Your task to perform on an android device: turn on translation in the chrome app Image 0: 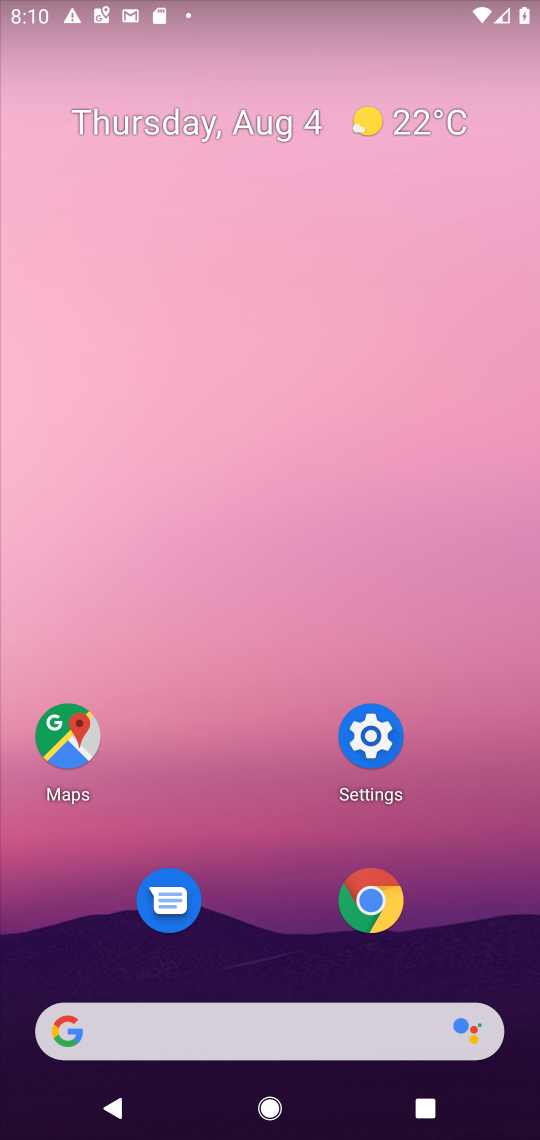
Step 0: click (381, 904)
Your task to perform on an android device: turn on translation in the chrome app Image 1: 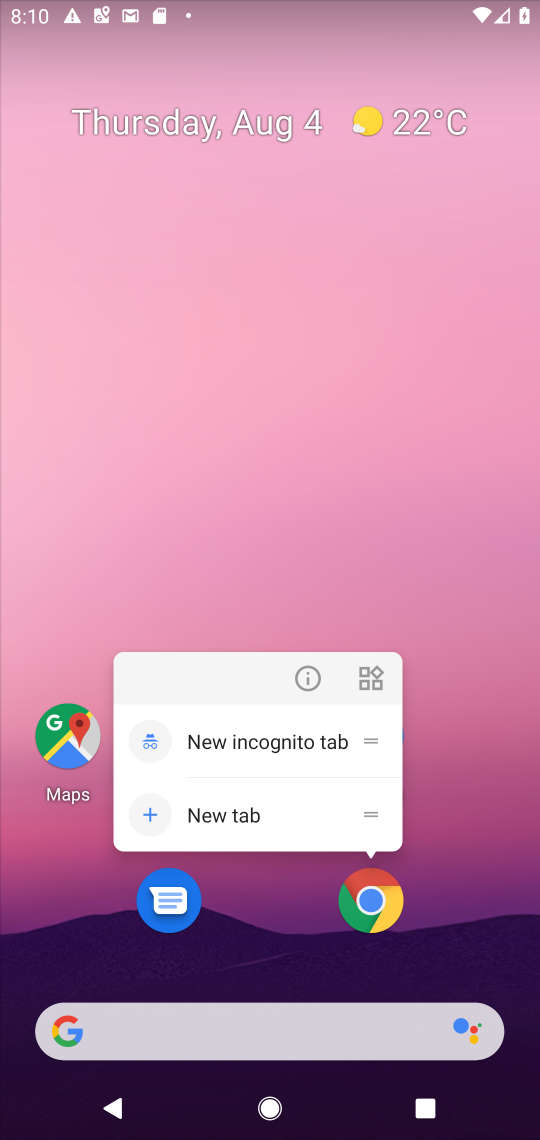
Step 1: click (370, 893)
Your task to perform on an android device: turn on translation in the chrome app Image 2: 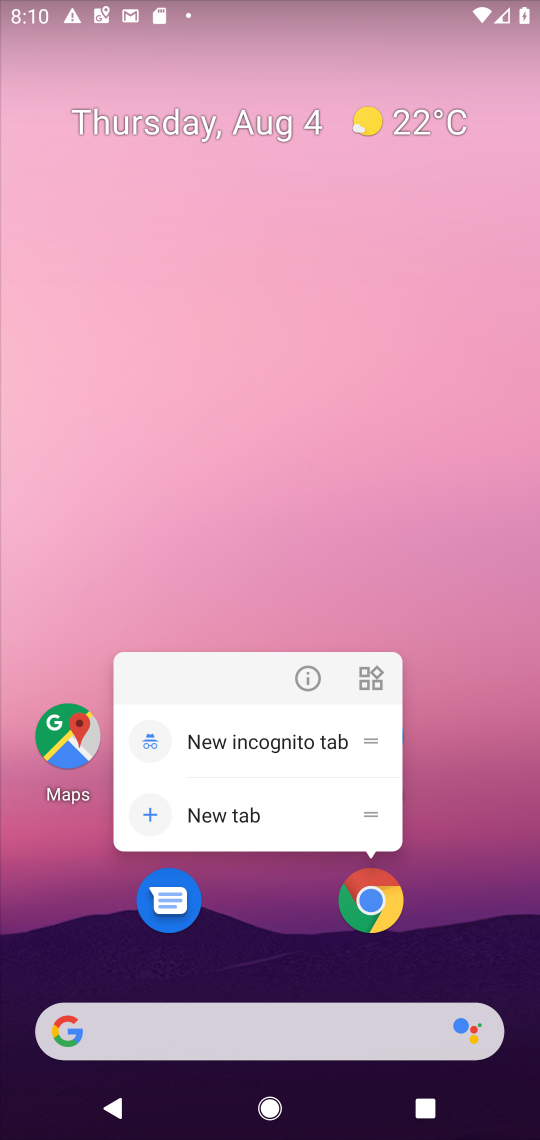
Step 2: click (367, 896)
Your task to perform on an android device: turn on translation in the chrome app Image 3: 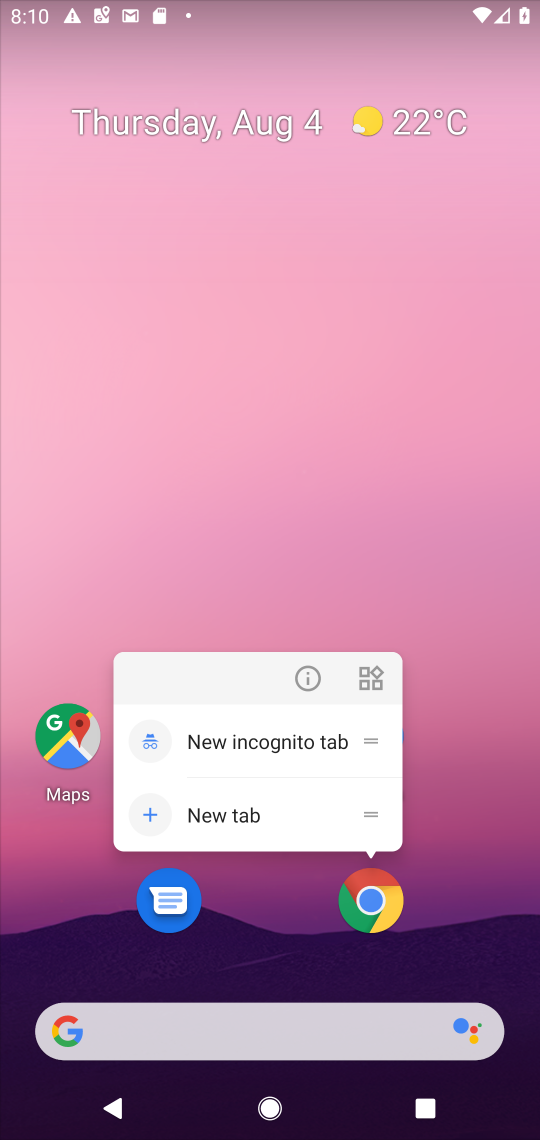
Step 3: click (367, 897)
Your task to perform on an android device: turn on translation in the chrome app Image 4: 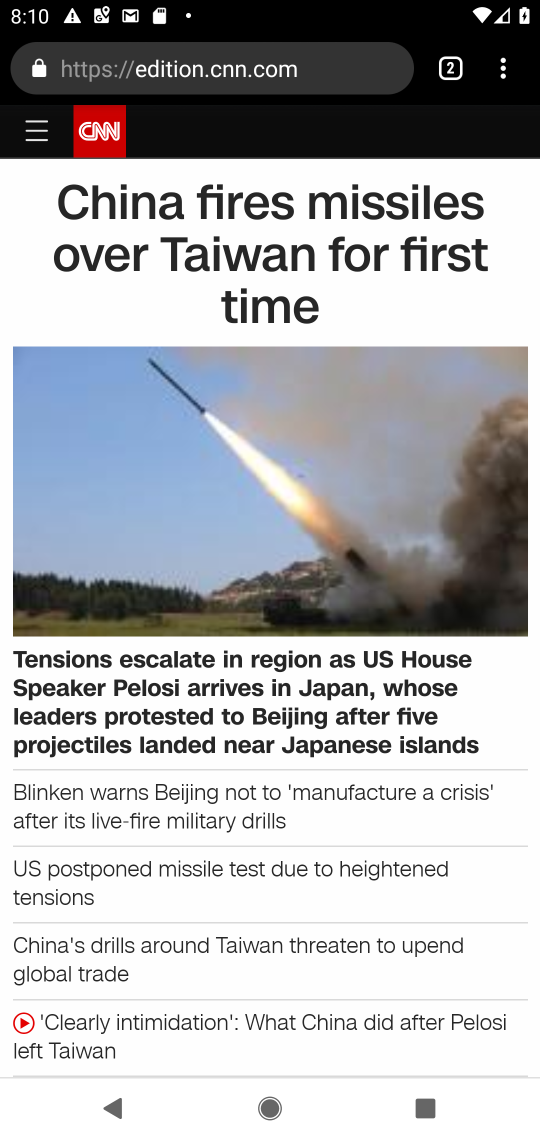
Step 4: click (364, 902)
Your task to perform on an android device: turn on translation in the chrome app Image 5: 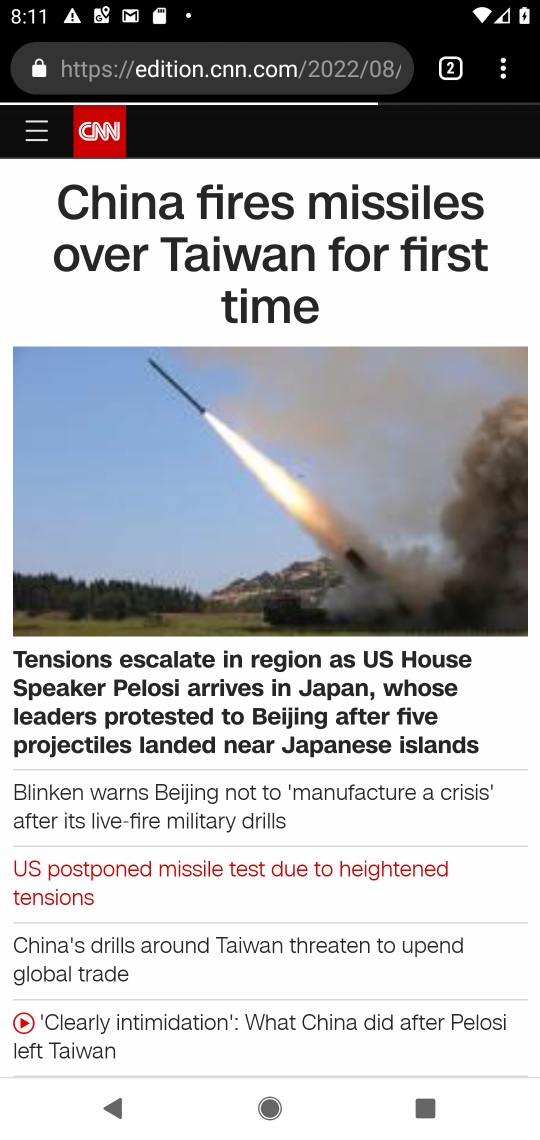
Step 5: press back button
Your task to perform on an android device: turn on translation in the chrome app Image 6: 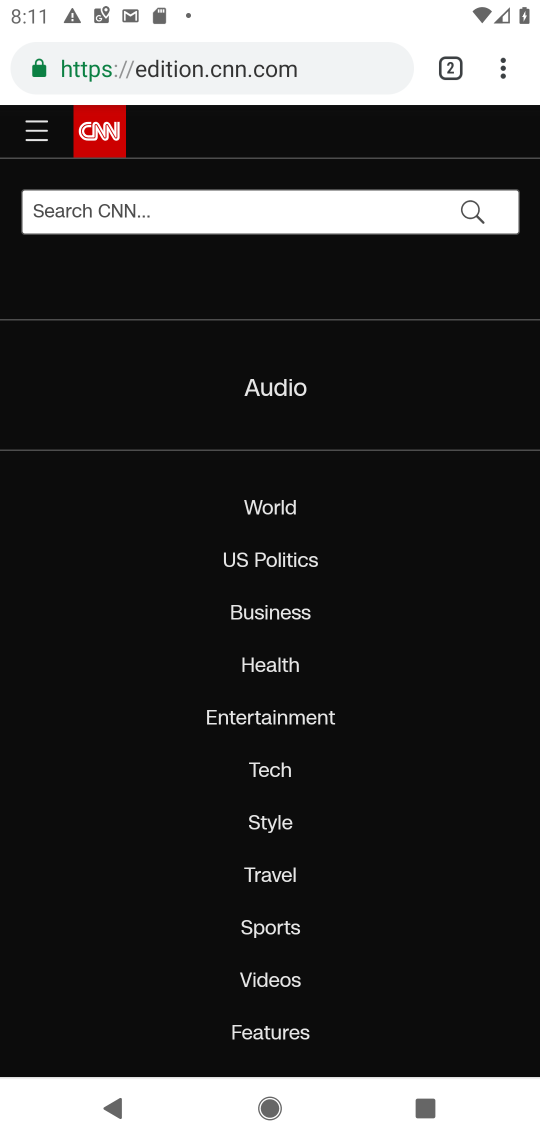
Step 6: drag from (504, 64) to (345, 902)
Your task to perform on an android device: turn on translation in the chrome app Image 7: 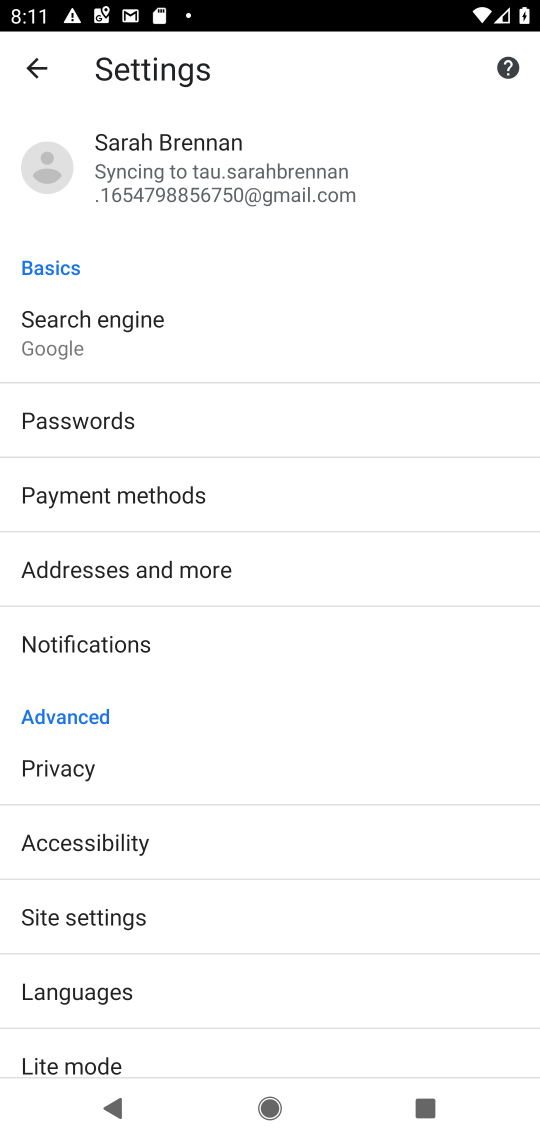
Step 7: click (90, 988)
Your task to perform on an android device: turn on translation in the chrome app Image 8: 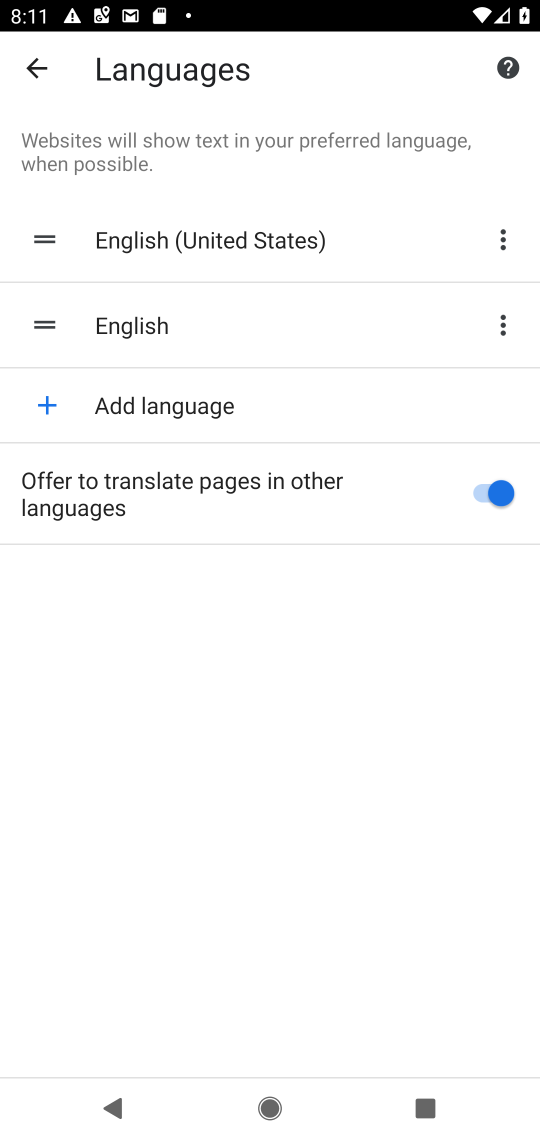
Step 8: task complete